Your task to perform on an android device: Open calendar and show me the fourth week of next month Image 0: 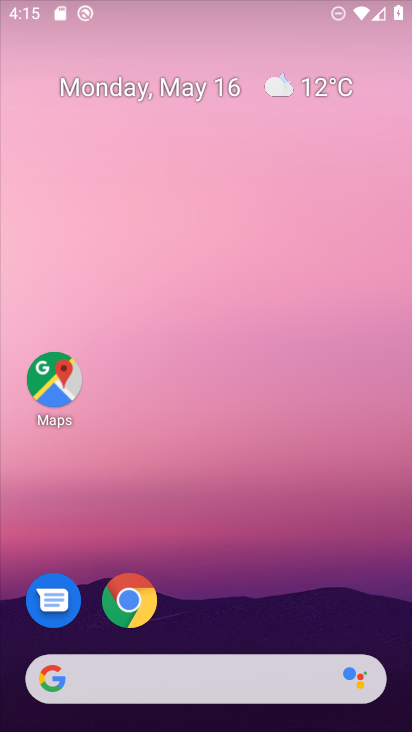
Step 0: drag from (347, 507) to (295, 49)
Your task to perform on an android device: Open calendar and show me the fourth week of next month Image 1: 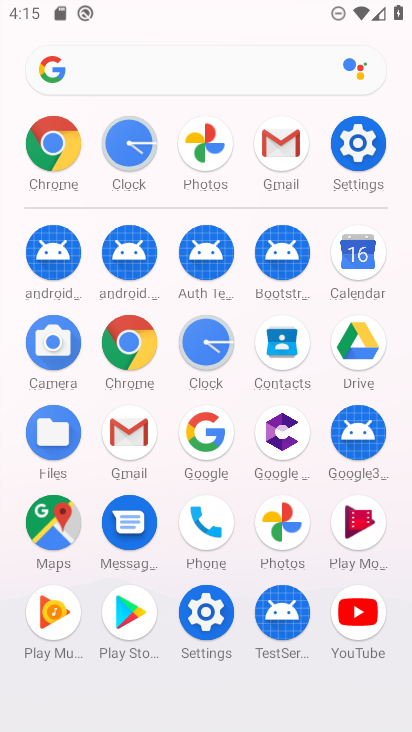
Step 1: click (351, 271)
Your task to perform on an android device: Open calendar and show me the fourth week of next month Image 2: 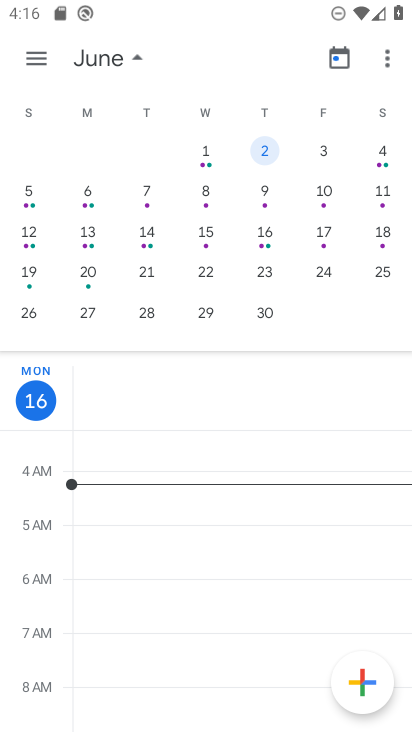
Step 2: click (35, 310)
Your task to perform on an android device: Open calendar and show me the fourth week of next month Image 3: 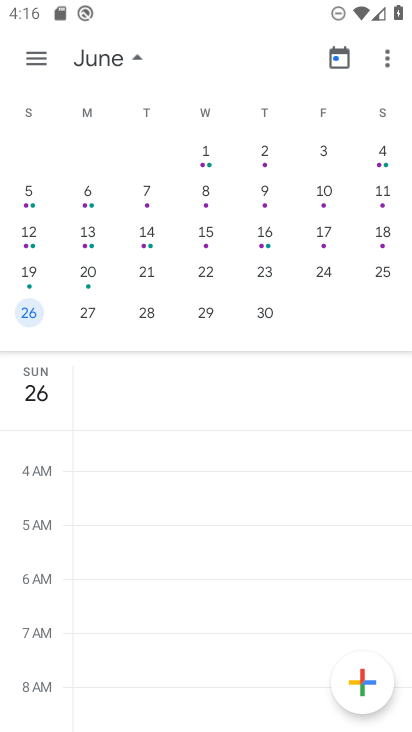
Step 3: task complete